Your task to perform on an android device: Open the Play Movies app and select the watchlist tab. Image 0: 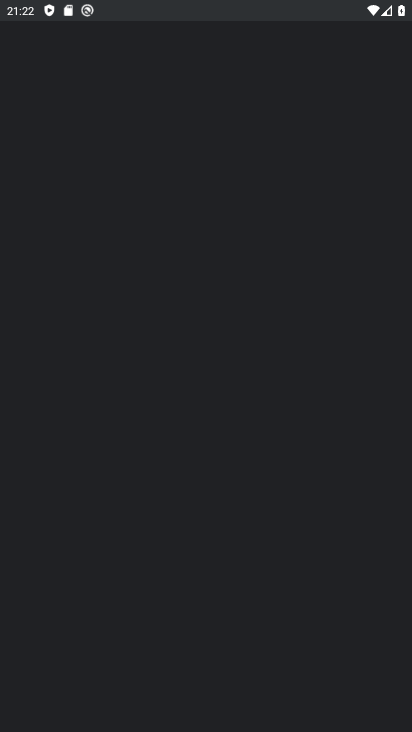
Step 0: drag from (309, 584) to (352, 48)
Your task to perform on an android device: Open the Play Movies app and select the watchlist tab. Image 1: 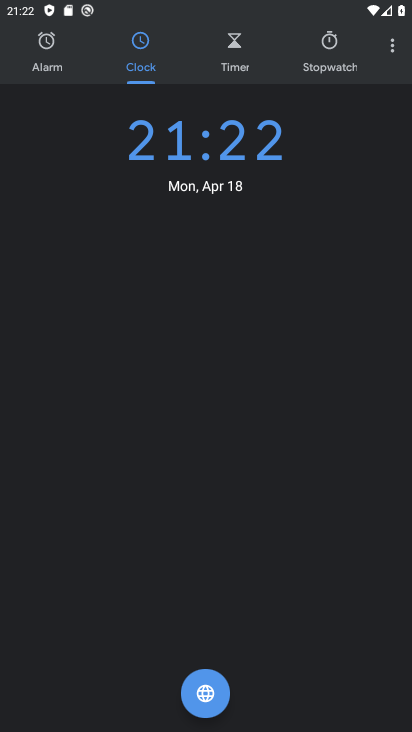
Step 1: press home button
Your task to perform on an android device: Open the Play Movies app and select the watchlist tab. Image 2: 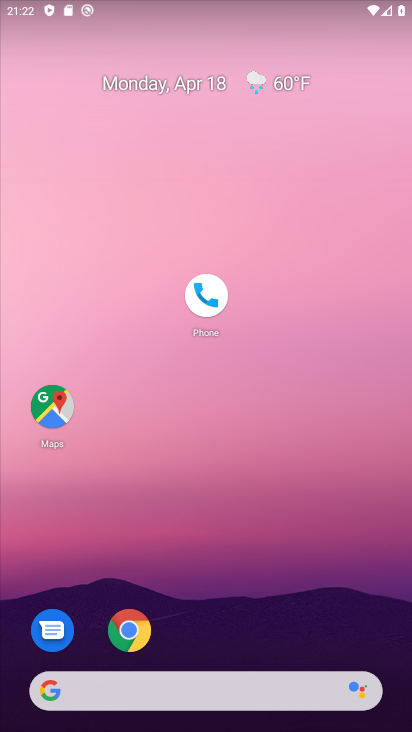
Step 2: drag from (275, 636) to (323, 112)
Your task to perform on an android device: Open the Play Movies app and select the watchlist tab. Image 3: 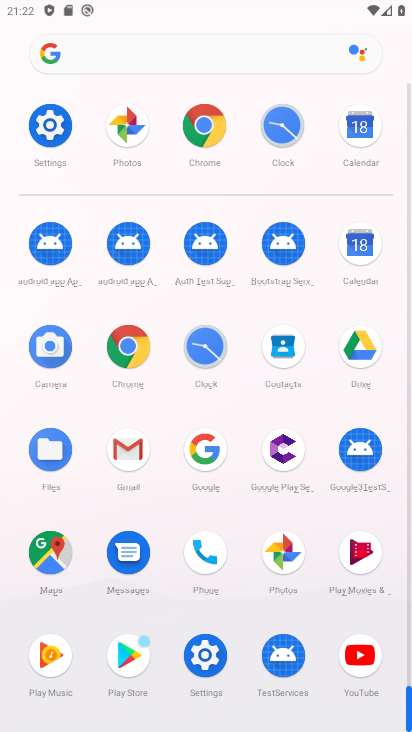
Step 3: click (362, 556)
Your task to perform on an android device: Open the Play Movies app and select the watchlist tab. Image 4: 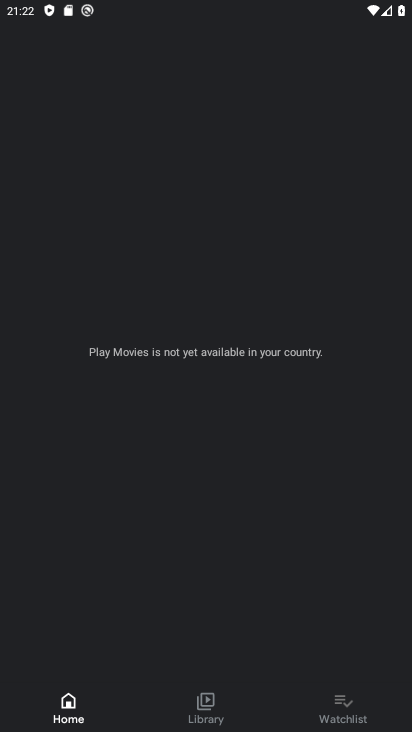
Step 4: press home button
Your task to perform on an android device: Open the Play Movies app and select the watchlist tab. Image 5: 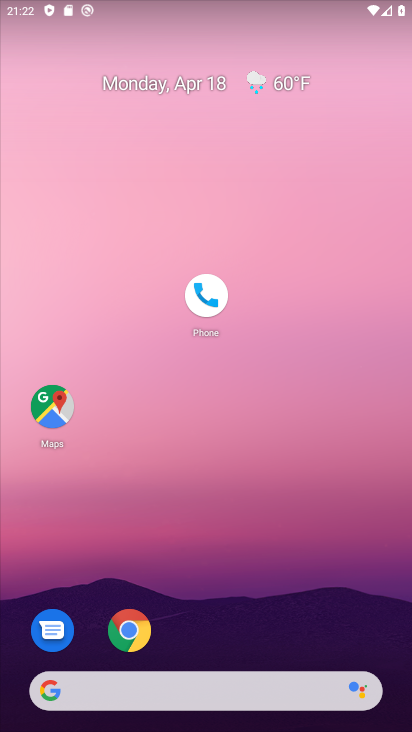
Step 5: drag from (276, 534) to (311, 16)
Your task to perform on an android device: Open the Play Movies app and select the watchlist tab. Image 6: 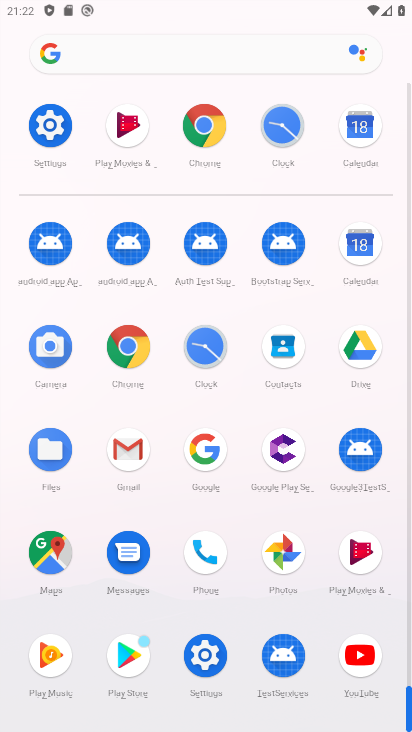
Step 6: click (361, 555)
Your task to perform on an android device: Open the Play Movies app and select the watchlist tab. Image 7: 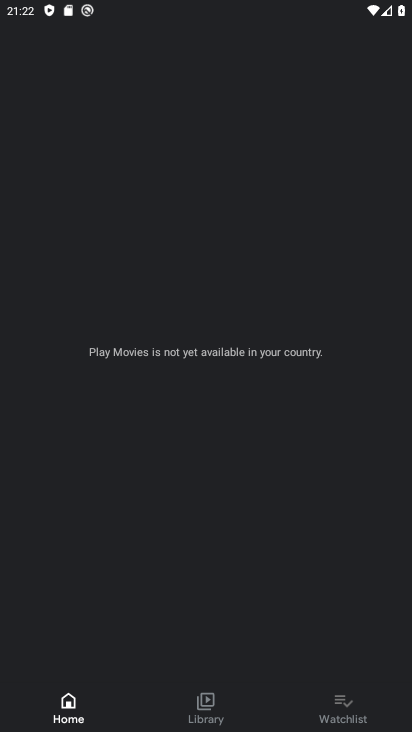
Step 7: click (343, 695)
Your task to perform on an android device: Open the Play Movies app and select the watchlist tab. Image 8: 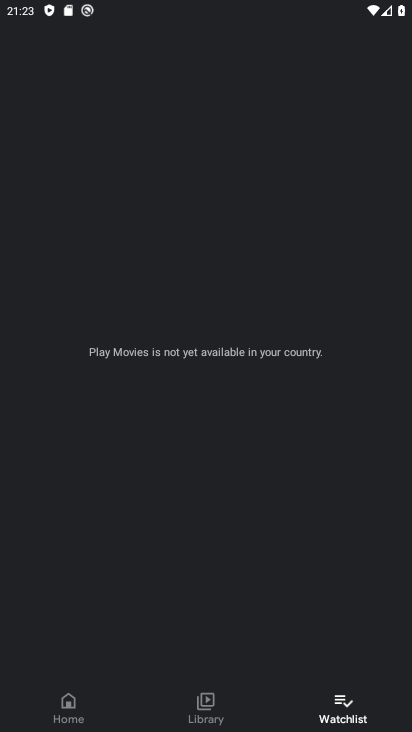
Step 8: task complete